Your task to perform on an android device: change notifications settings Image 0: 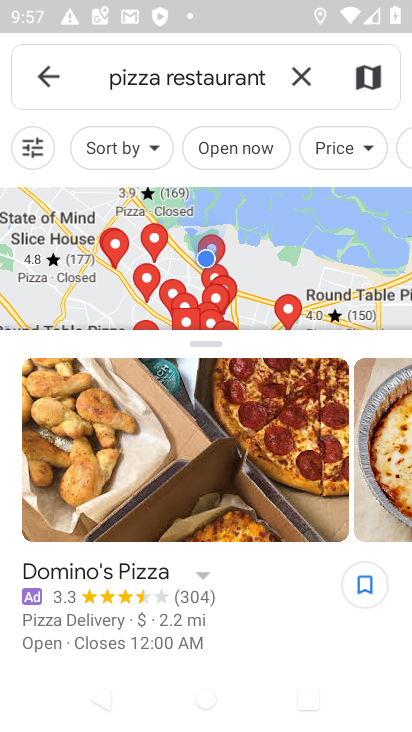
Step 0: press back button
Your task to perform on an android device: change notifications settings Image 1: 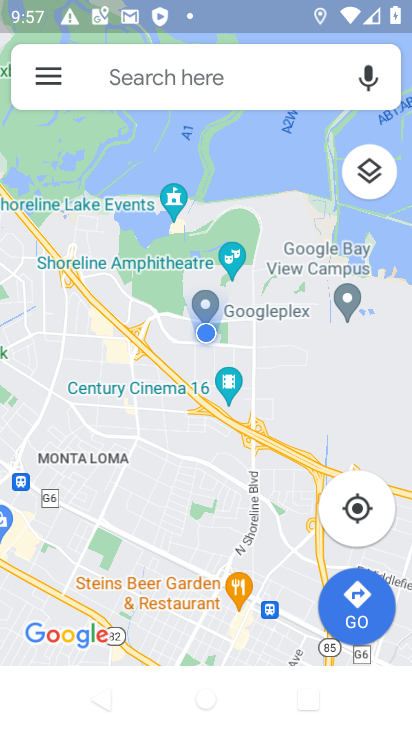
Step 1: press back button
Your task to perform on an android device: change notifications settings Image 2: 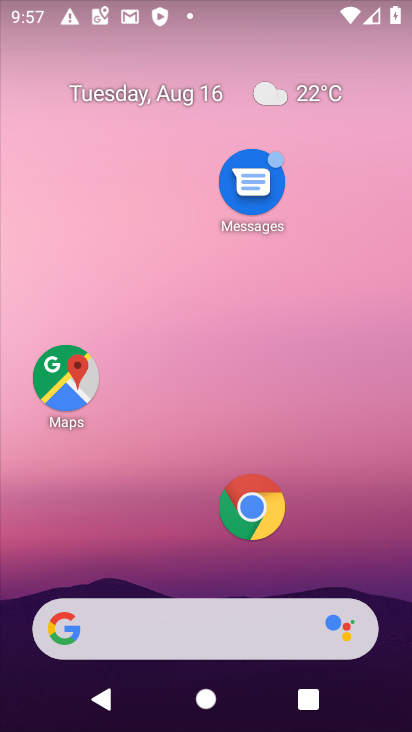
Step 2: drag from (141, 563) to (176, 69)
Your task to perform on an android device: change notifications settings Image 3: 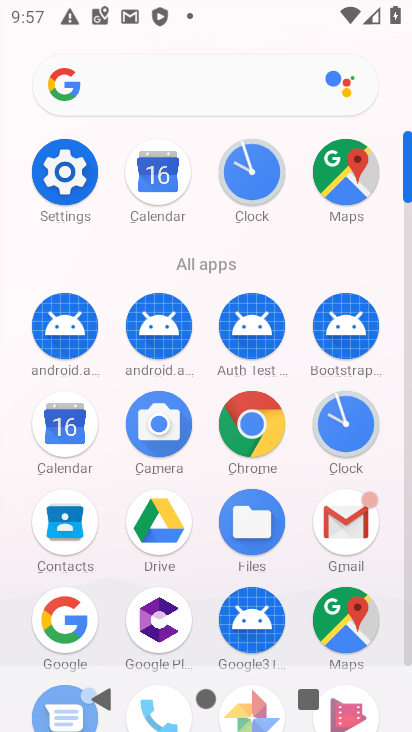
Step 3: click (86, 170)
Your task to perform on an android device: change notifications settings Image 4: 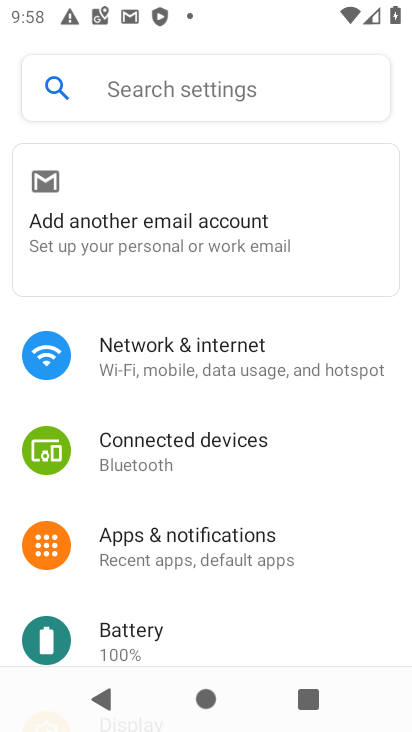
Step 4: click (230, 547)
Your task to perform on an android device: change notifications settings Image 5: 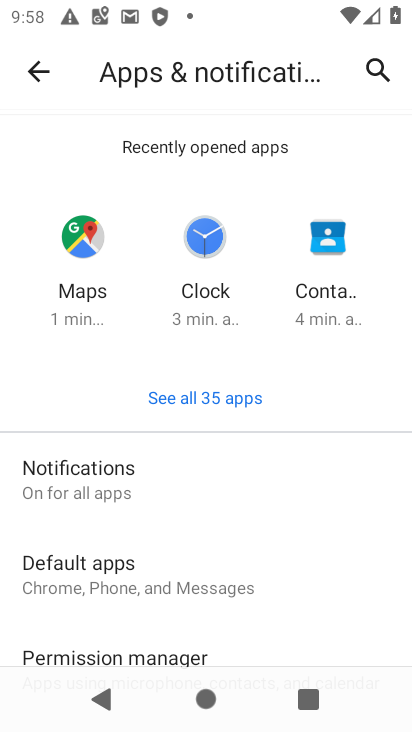
Step 5: click (79, 448)
Your task to perform on an android device: change notifications settings Image 6: 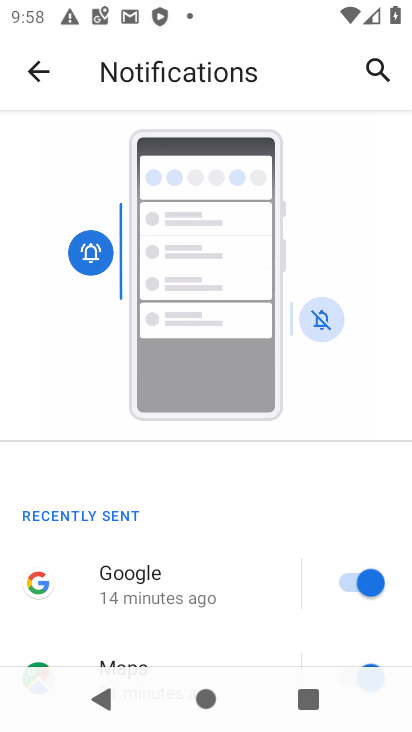
Step 6: drag from (175, 624) to (272, 241)
Your task to perform on an android device: change notifications settings Image 7: 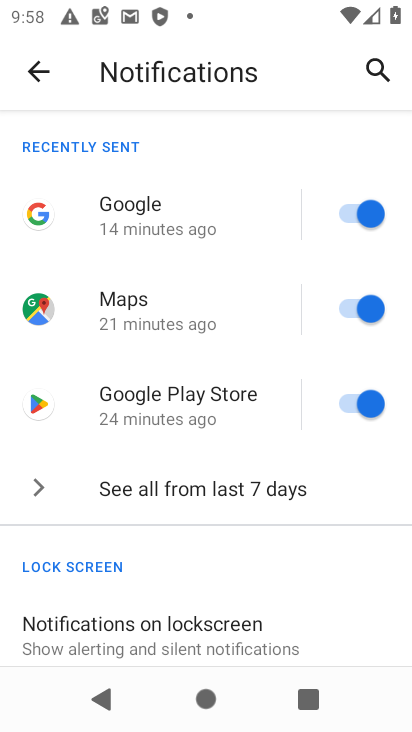
Step 7: drag from (167, 602) to (240, 155)
Your task to perform on an android device: change notifications settings Image 8: 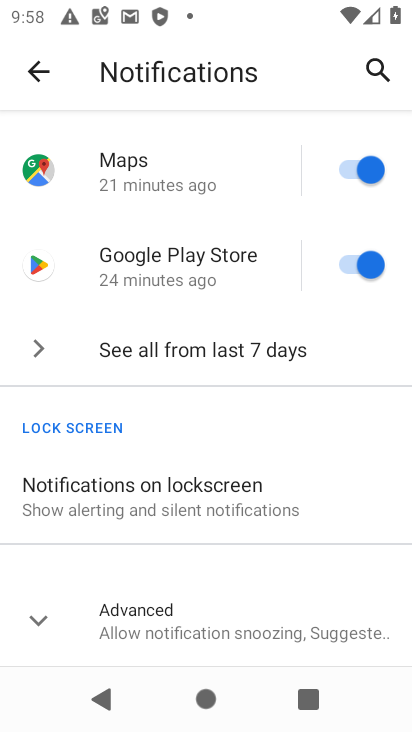
Step 8: click (175, 610)
Your task to perform on an android device: change notifications settings Image 9: 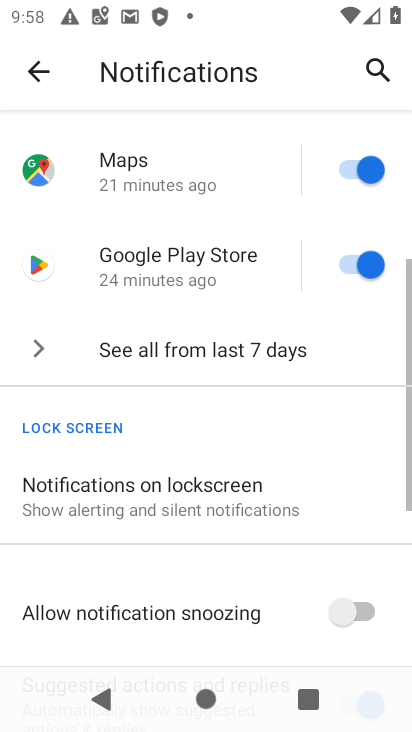
Step 9: drag from (175, 611) to (271, 266)
Your task to perform on an android device: change notifications settings Image 10: 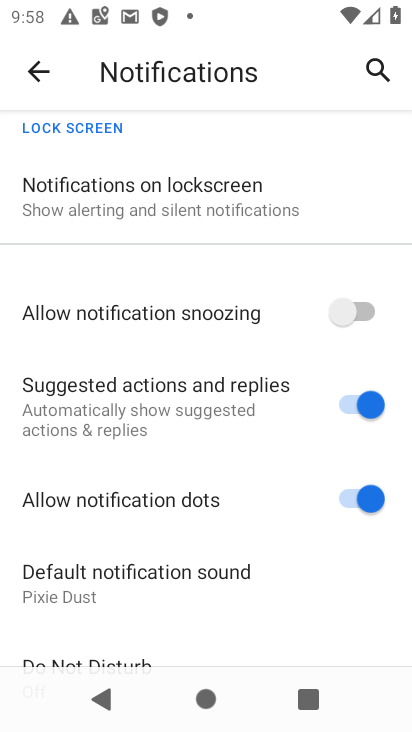
Step 10: click (362, 315)
Your task to perform on an android device: change notifications settings Image 11: 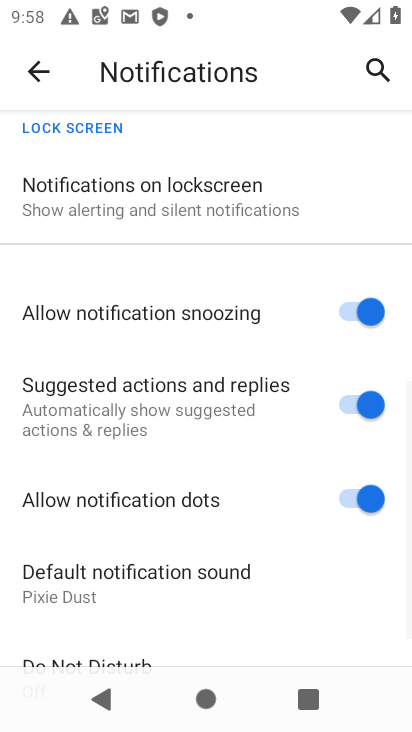
Step 11: task complete